Your task to perform on an android device: Go to settings Image 0: 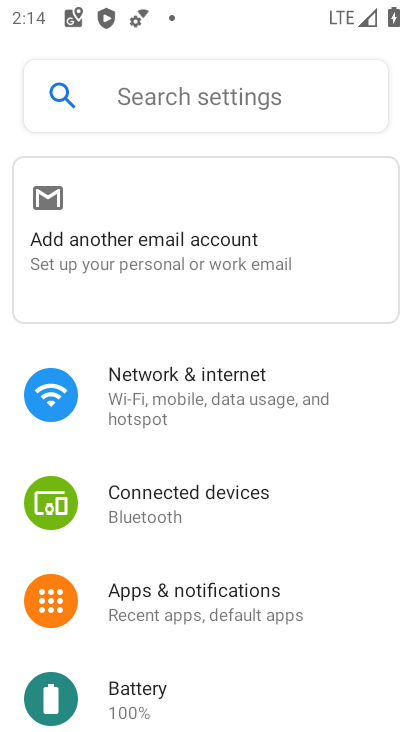
Step 0: task complete